Your task to perform on an android device: Open eBay Image 0: 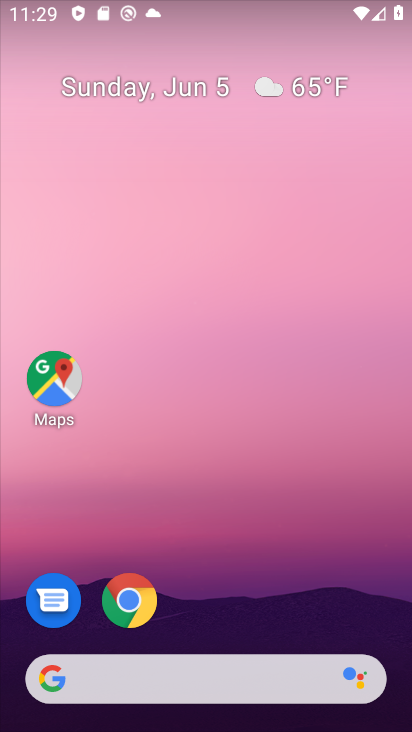
Step 0: click (142, 590)
Your task to perform on an android device: Open eBay Image 1: 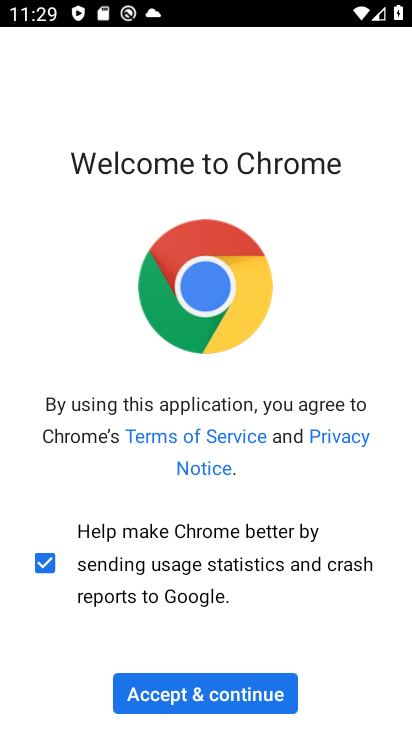
Step 1: click (246, 678)
Your task to perform on an android device: Open eBay Image 2: 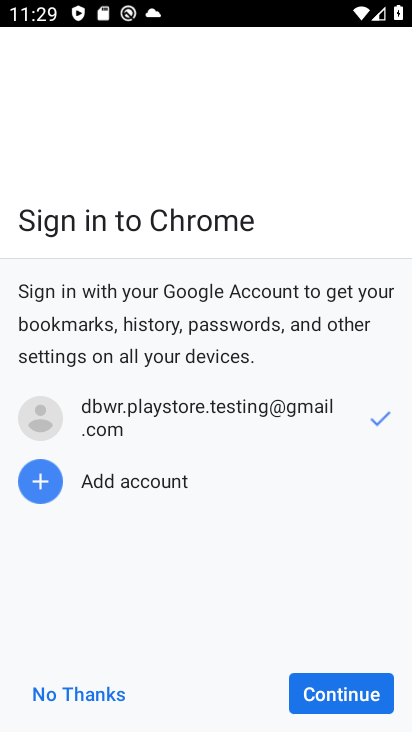
Step 2: click (339, 700)
Your task to perform on an android device: Open eBay Image 3: 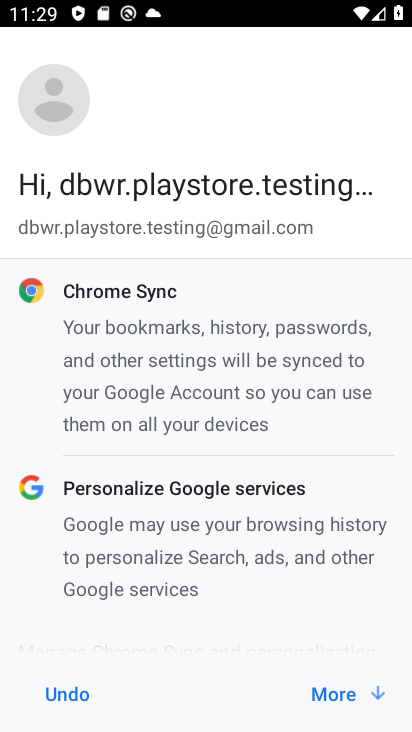
Step 3: click (341, 698)
Your task to perform on an android device: Open eBay Image 4: 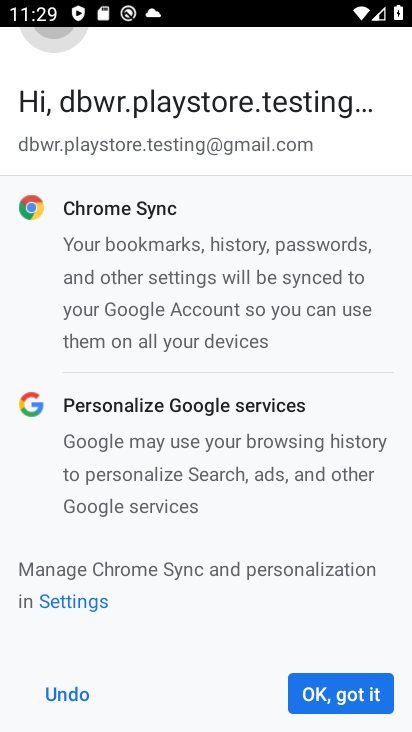
Step 4: click (341, 699)
Your task to perform on an android device: Open eBay Image 5: 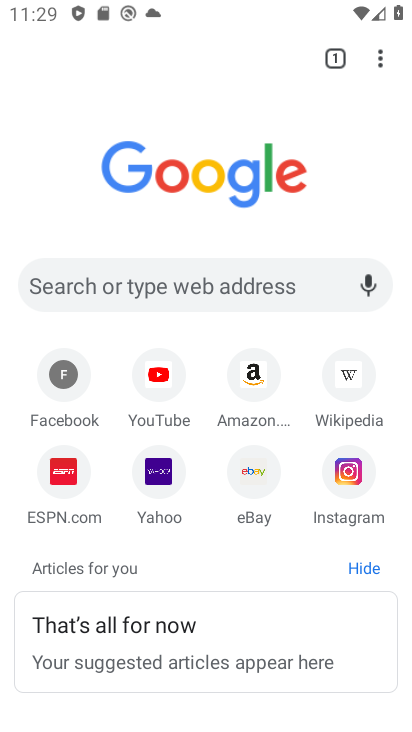
Step 5: click (191, 286)
Your task to perform on an android device: Open eBay Image 6: 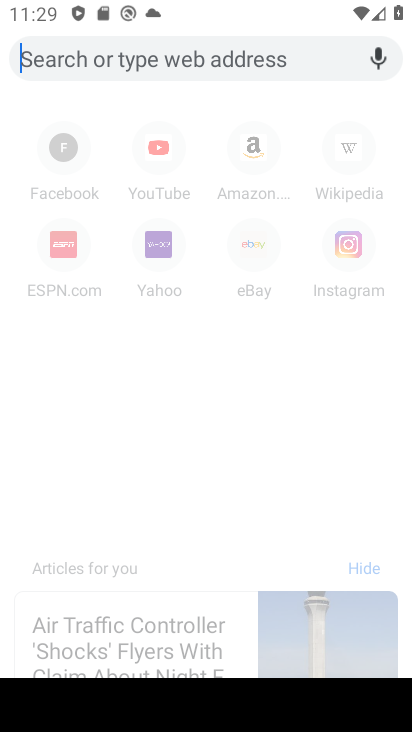
Step 6: type "eBay"
Your task to perform on an android device: Open eBay Image 7: 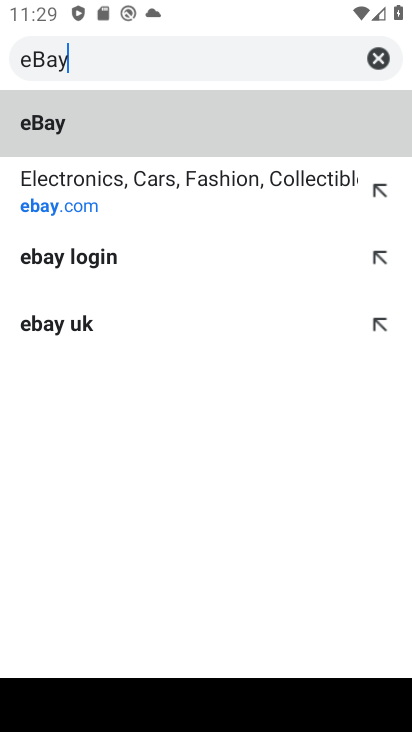
Step 7: click (43, 120)
Your task to perform on an android device: Open eBay Image 8: 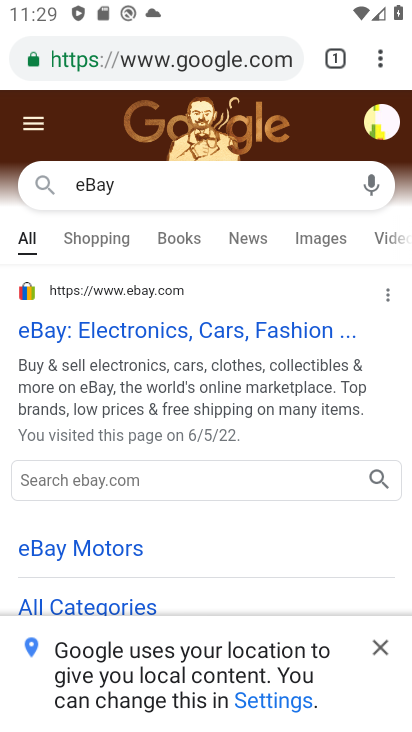
Step 8: task complete